Your task to perform on an android device: delete browsing data in the chrome app Image 0: 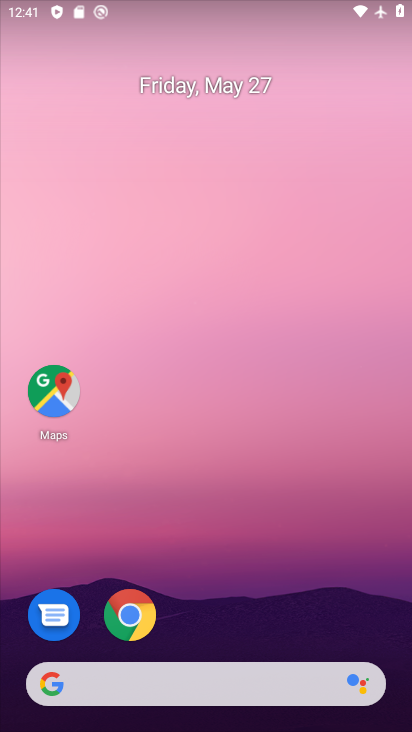
Step 0: press home button
Your task to perform on an android device: delete browsing data in the chrome app Image 1: 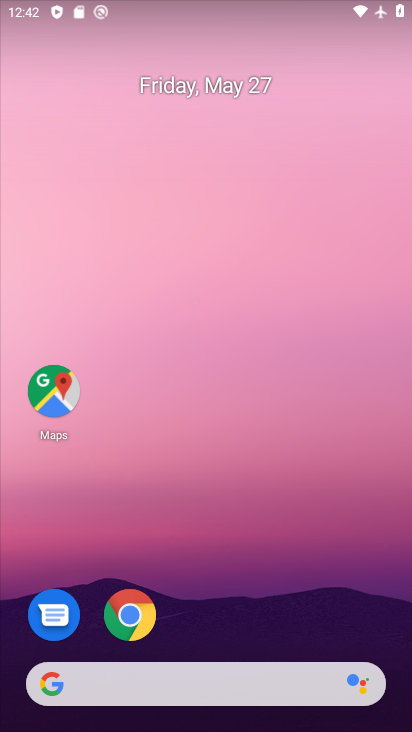
Step 1: click (134, 610)
Your task to perform on an android device: delete browsing data in the chrome app Image 2: 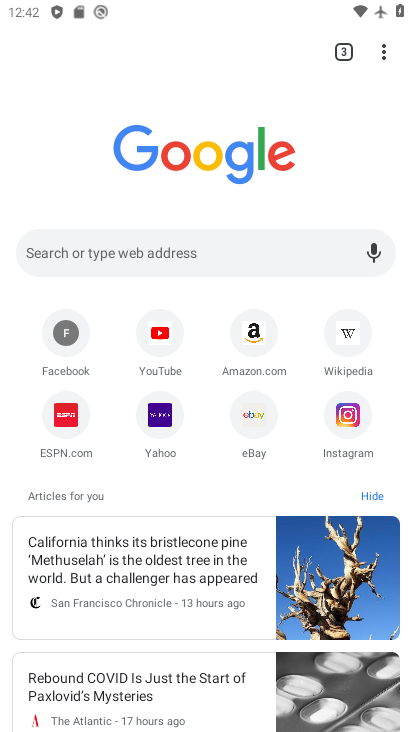
Step 2: drag from (388, 47) to (205, 443)
Your task to perform on an android device: delete browsing data in the chrome app Image 3: 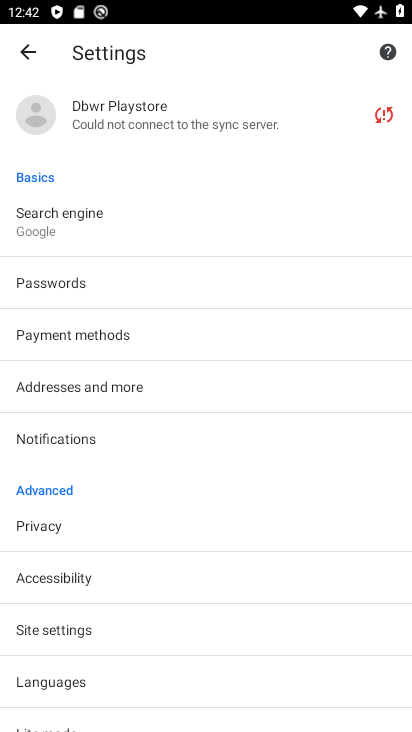
Step 3: click (34, 528)
Your task to perform on an android device: delete browsing data in the chrome app Image 4: 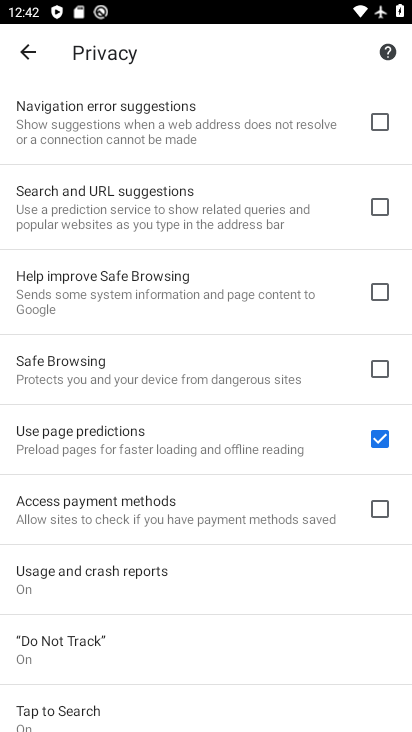
Step 4: drag from (242, 613) to (267, 132)
Your task to perform on an android device: delete browsing data in the chrome app Image 5: 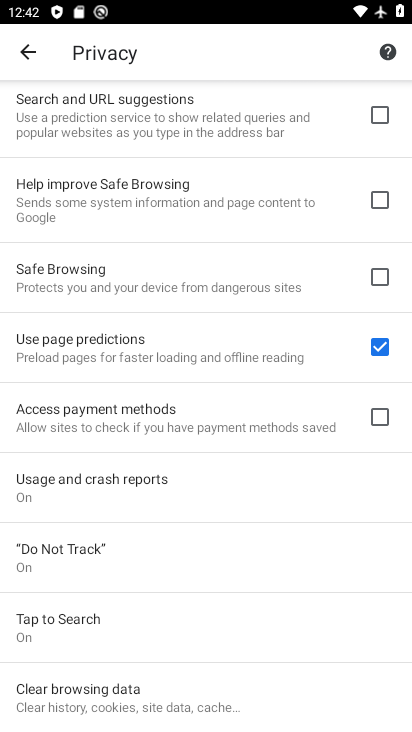
Step 5: click (79, 690)
Your task to perform on an android device: delete browsing data in the chrome app Image 6: 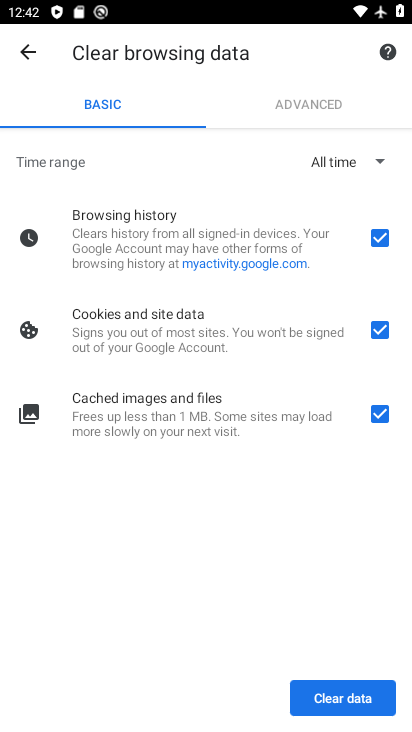
Step 6: click (347, 693)
Your task to perform on an android device: delete browsing data in the chrome app Image 7: 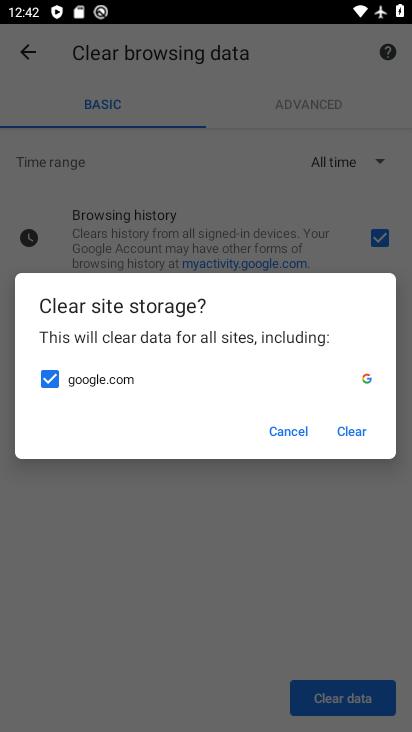
Step 7: click (358, 438)
Your task to perform on an android device: delete browsing data in the chrome app Image 8: 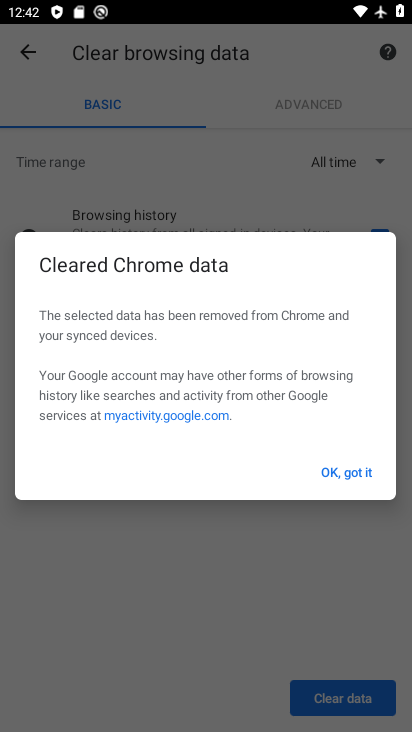
Step 8: click (354, 472)
Your task to perform on an android device: delete browsing data in the chrome app Image 9: 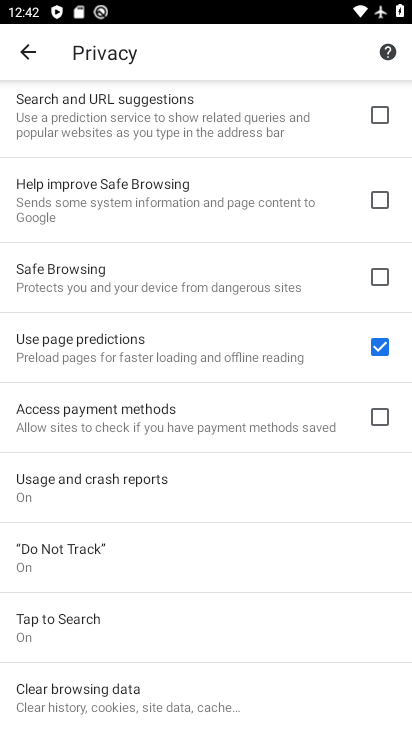
Step 9: task complete